Your task to perform on an android device: open app "Pluto TV - Live TV and Movies" Image 0: 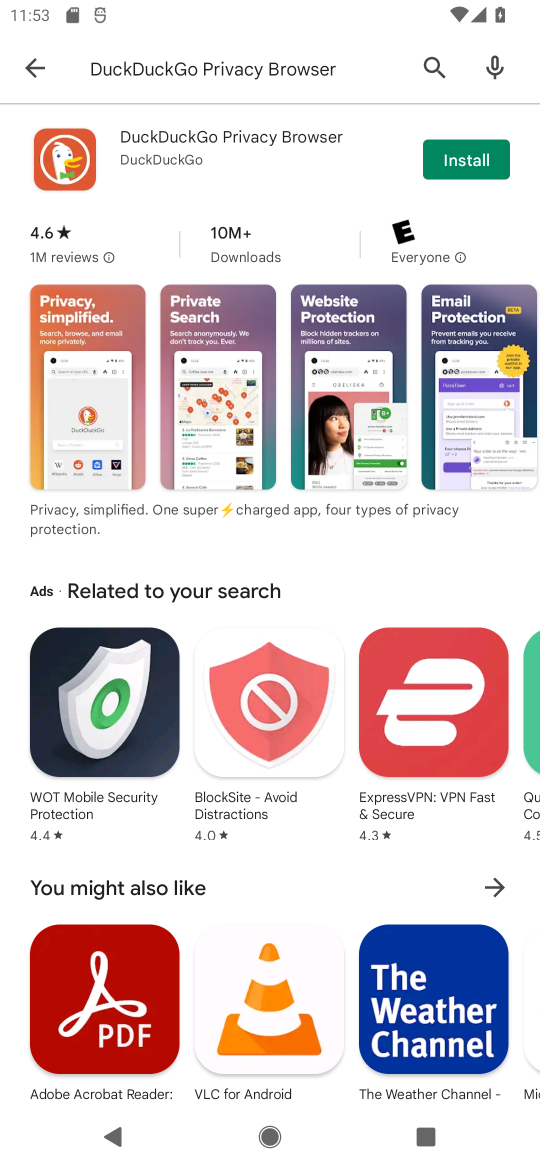
Step 0: press home button
Your task to perform on an android device: open app "Pluto TV - Live TV and Movies" Image 1: 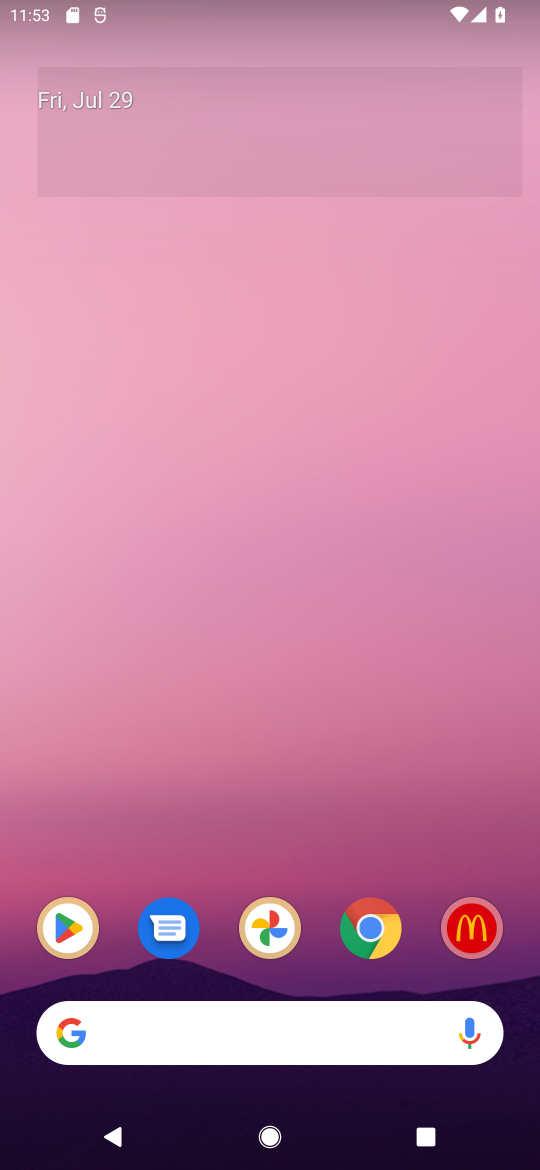
Step 1: drag from (390, 748) to (420, 42)
Your task to perform on an android device: open app "Pluto TV - Live TV and Movies" Image 2: 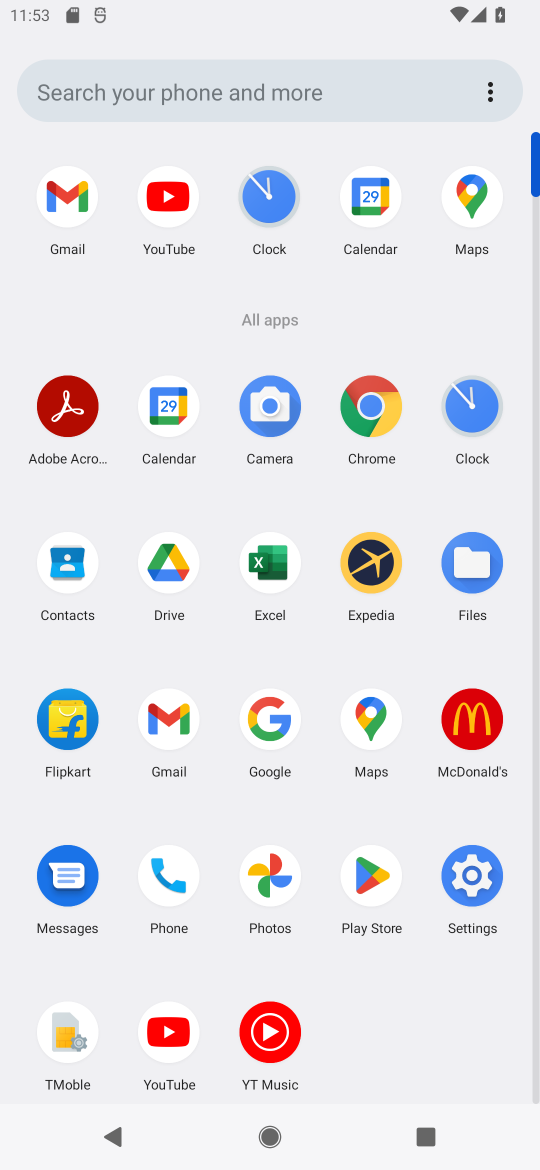
Step 2: click (365, 866)
Your task to perform on an android device: open app "Pluto TV - Live TV and Movies" Image 3: 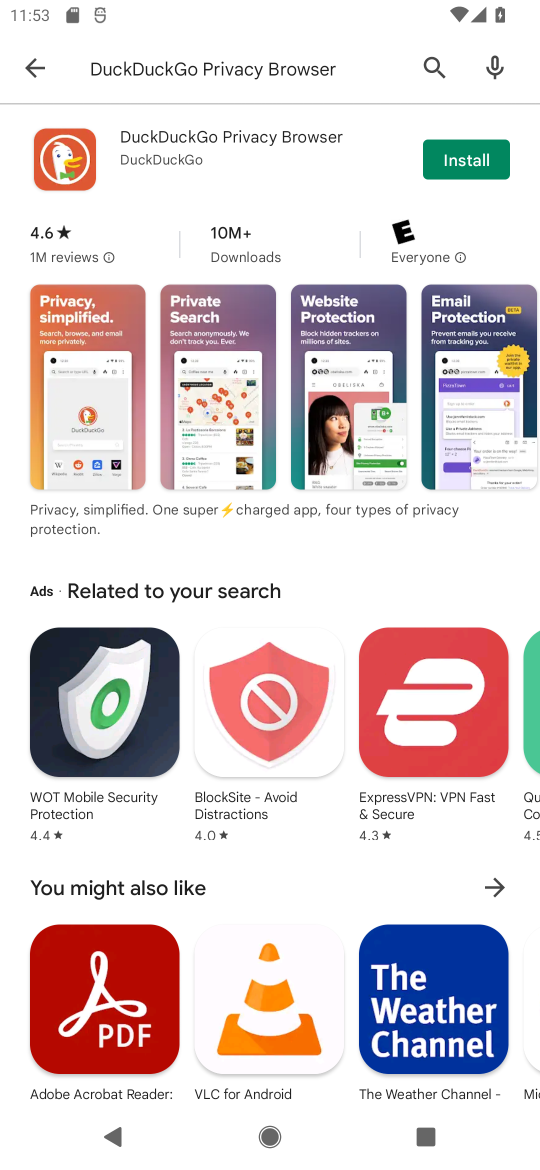
Step 3: click (306, 63)
Your task to perform on an android device: open app "Pluto TV - Live TV and Movies" Image 4: 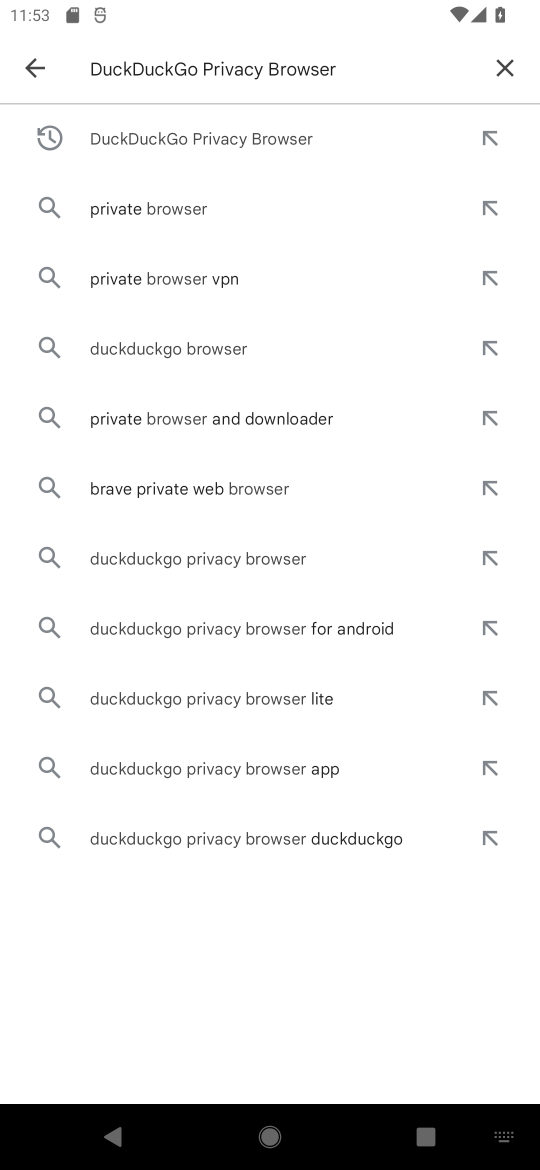
Step 4: click (502, 64)
Your task to perform on an android device: open app "Pluto TV - Live TV and Movies" Image 5: 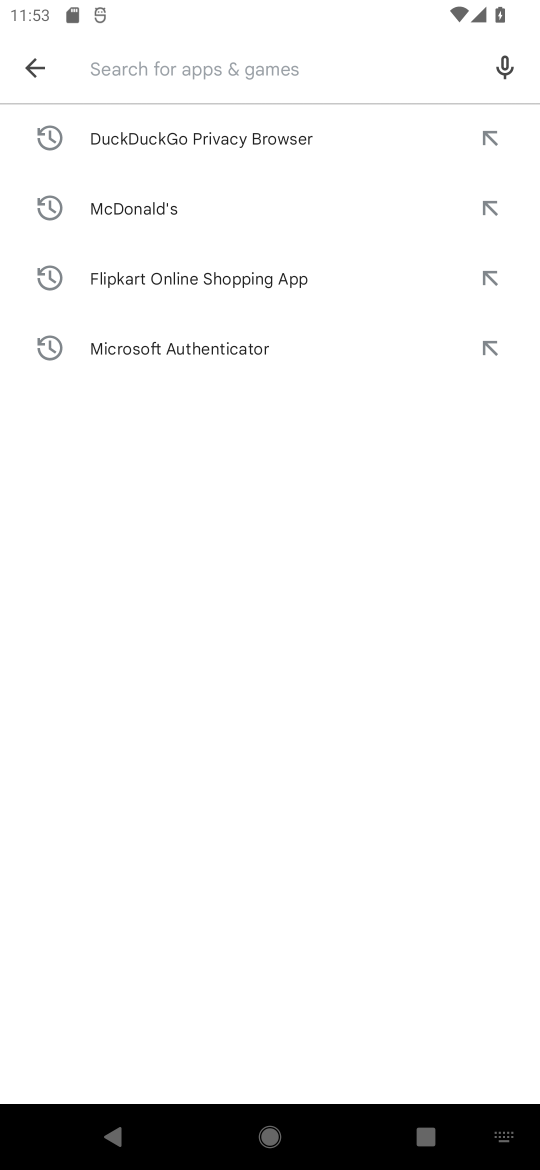
Step 5: type "Pluto TV - Live TV and Movies"
Your task to perform on an android device: open app "Pluto TV - Live TV and Movies" Image 6: 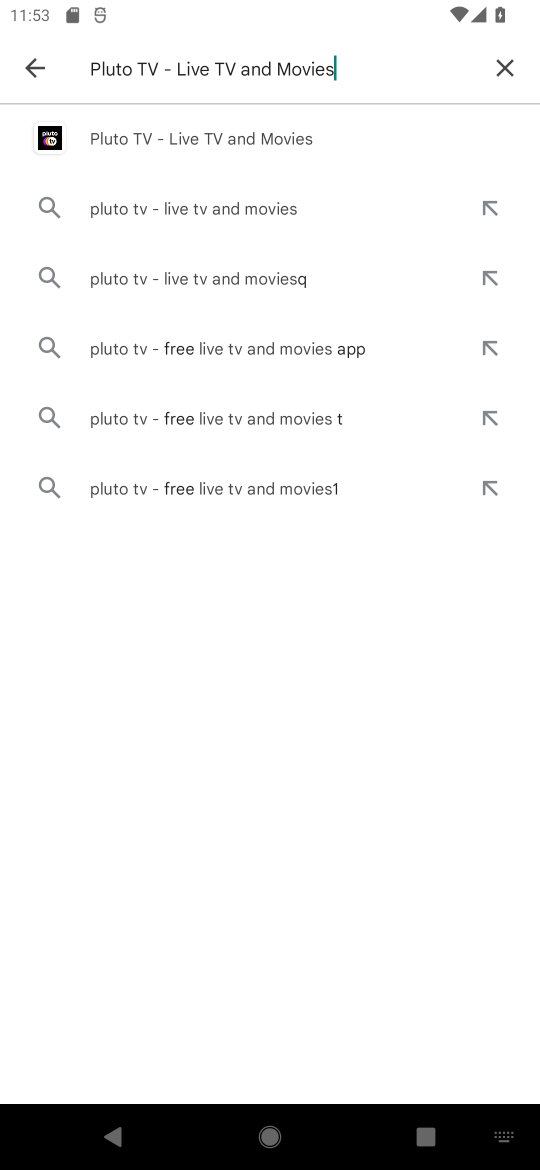
Step 6: press enter
Your task to perform on an android device: open app "Pluto TV - Live TV and Movies" Image 7: 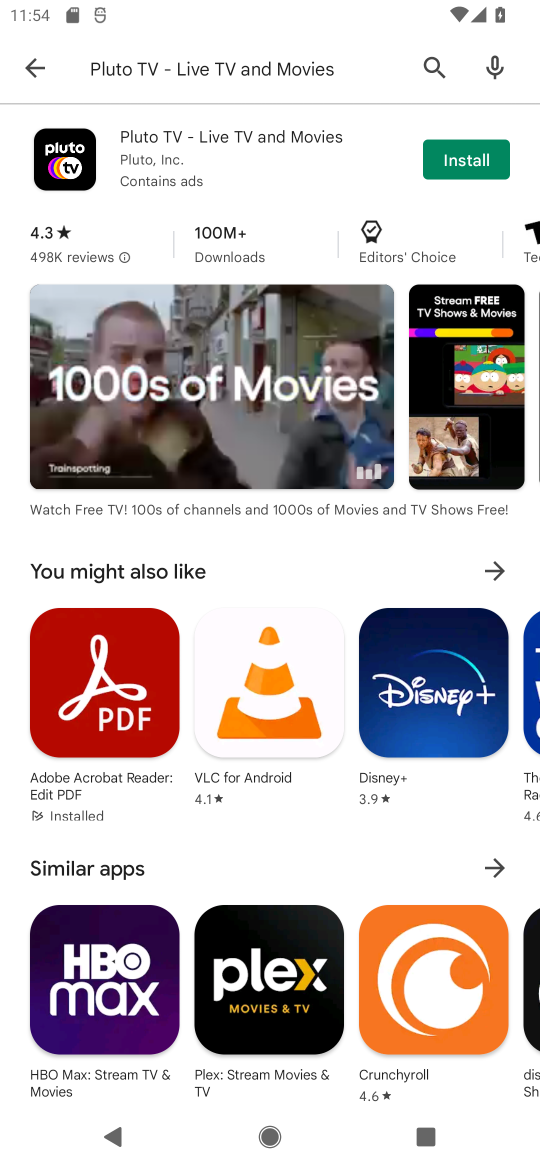
Step 7: task complete